Your task to perform on an android device: Is it going to rain this weekend? Image 0: 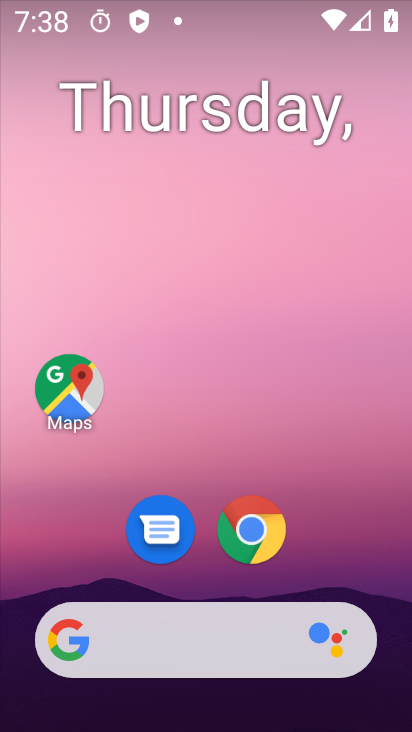
Step 0: click (407, 380)
Your task to perform on an android device: Is it going to rain this weekend? Image 1: 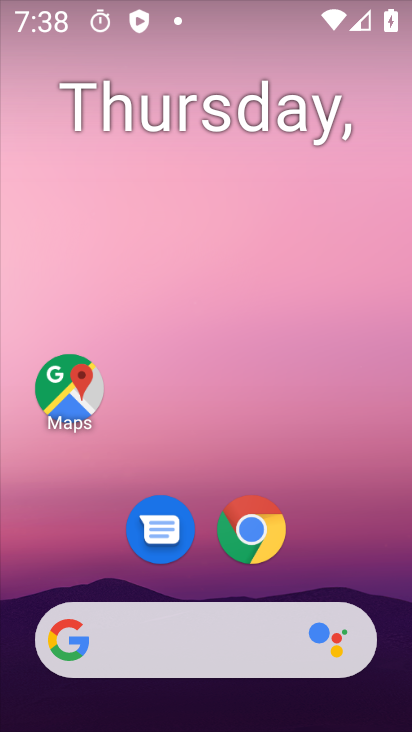
Step 1: drag from (1, 264) to (407, 241)
Your task to perform on an android device: Is it going to rain this weekend? Image 2: 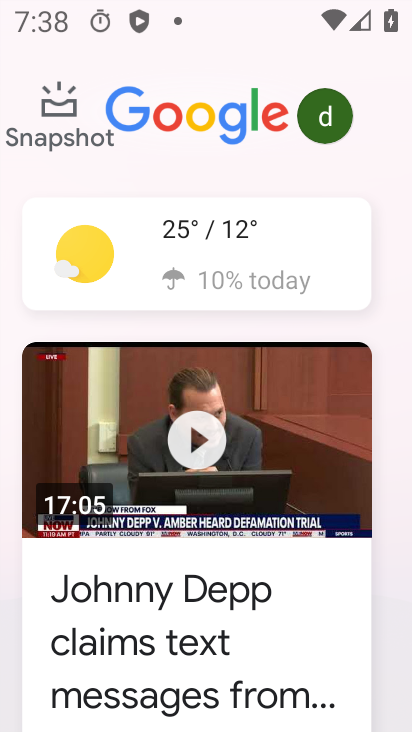
Step 2: click (183, 241)
Your task to perform on an android device: Is it going to rain this weekend? Image 3: 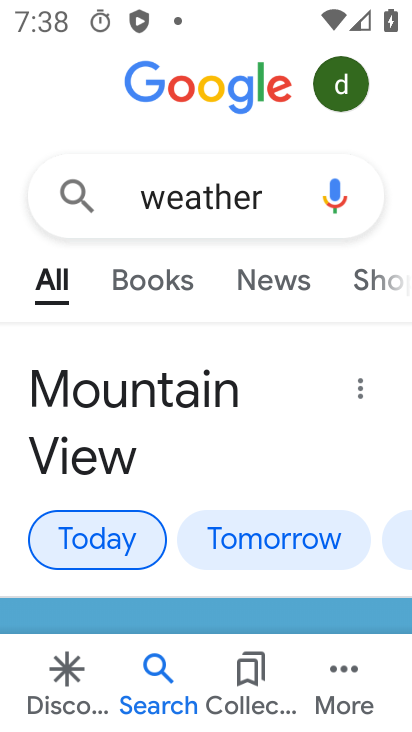
Step 3: click (405, 537)
Your task to perform on an android device: Is it going to rain this weekend? Image 4: 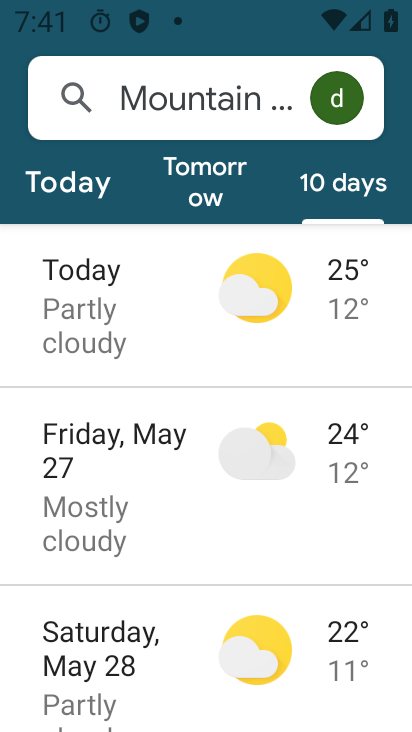
Step 4: task complete